Your task to perform on an android device: empty trash in google photos Image 0: 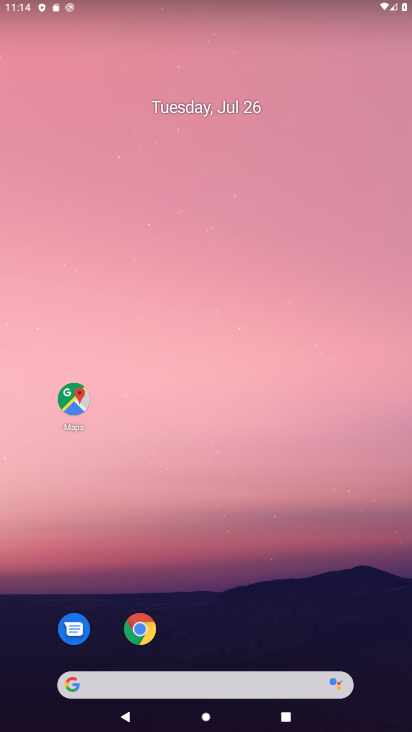
Step 0: drag from (225, 710) to (215, 151)
Your task to perform on an android device: empty trash in google photos Image 1: 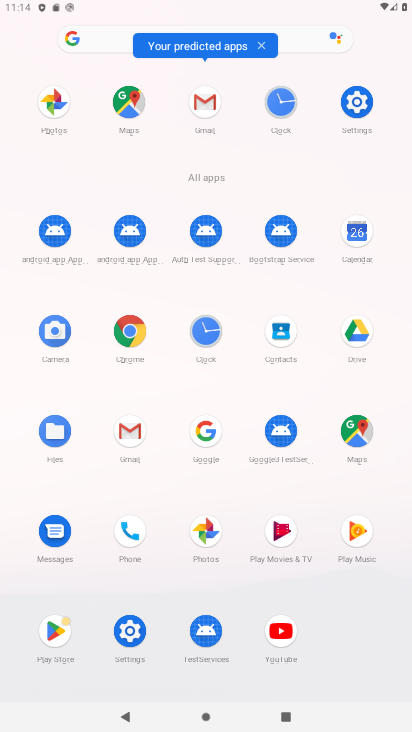
Step 1: click (204, 527)
Your task to perform on an android device: empty trash in google photos Image 2: 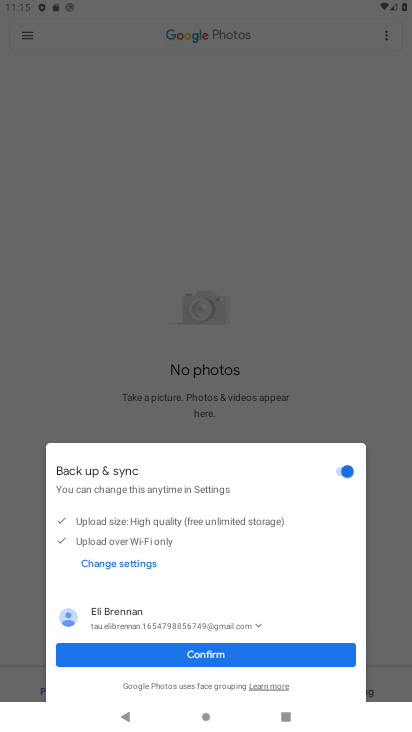
Step 2: click (201, 655)
Your task to perform on an android device: empty trash in google photos Image 3: 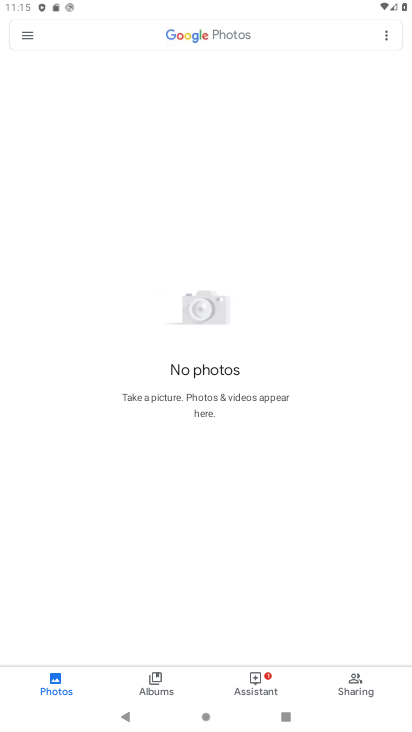
Step 3: click (22, 34)
Your task to perform on an android device: empty trash in google photos Image 4: 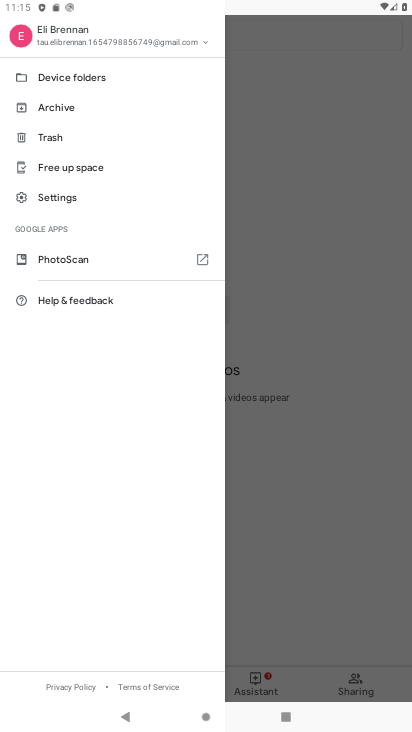
Step 4: click (58, 136)
Your task to perform on an android device: empty trash in google photos Image 5: 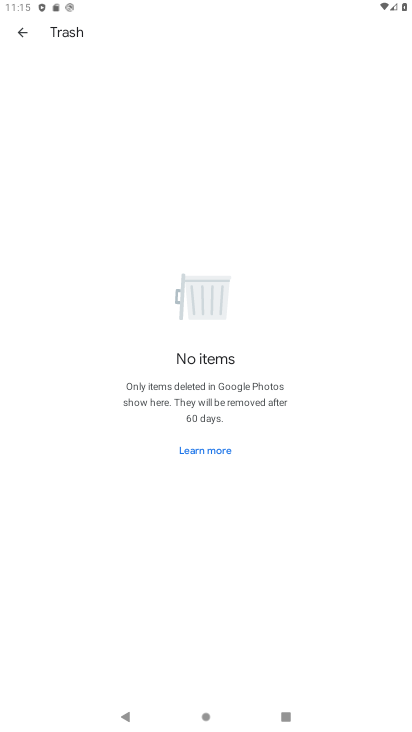
Step 5: task complete